Your task to perform on an android device: check out phone information Image 0: 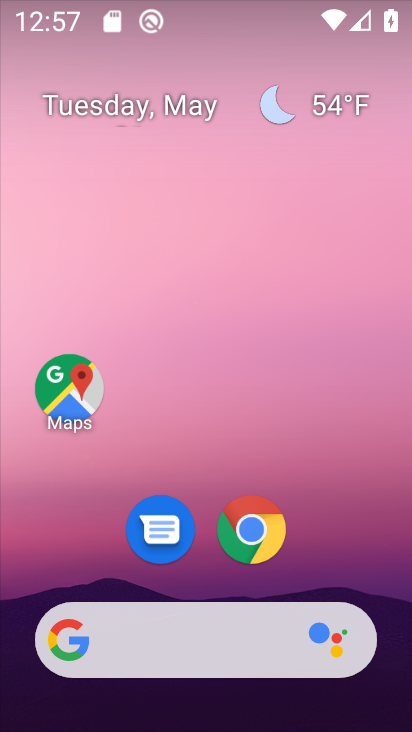
Step 0: drag from (301, 552) to (264, 260)
Your task to perform on an android device: check out phone information Image 1: 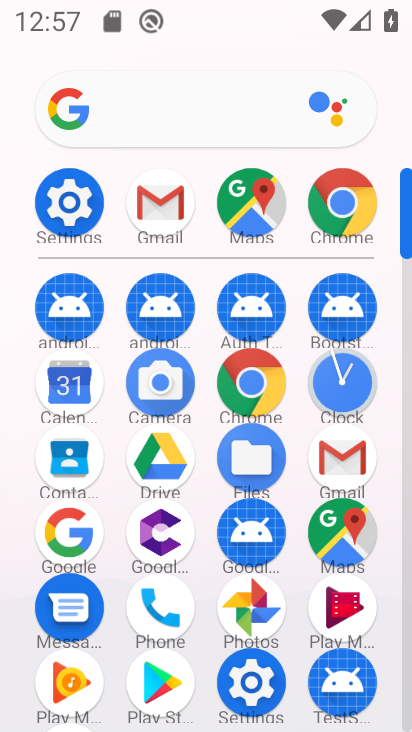
Step 1: click (250, 683)
Your task to perform on an android device: check out phone information Image 2: 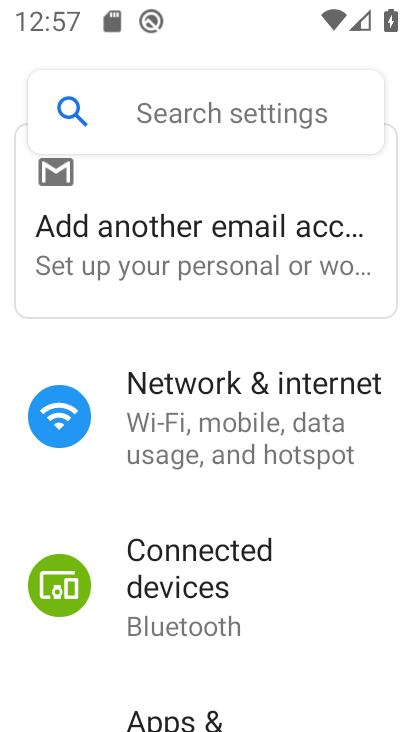
Step 2: drag from (305, 634) to (284, 248)
Your task to perform on an android device: check out phone information Image 3: 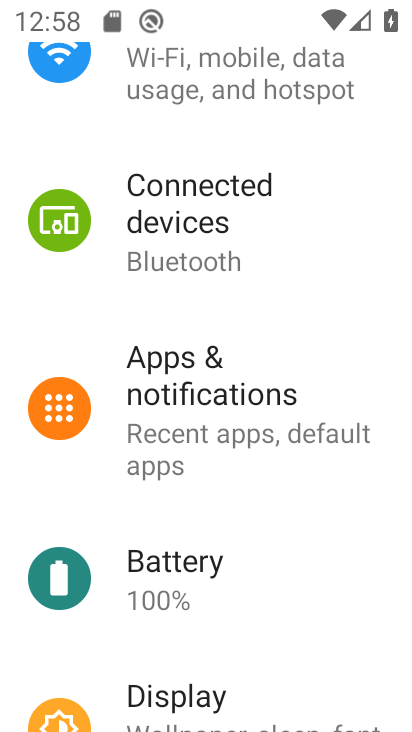
Step 3: drag from (228, 656) to (240, 173)
Your task to perform on an android device: check out phone information Image 4: 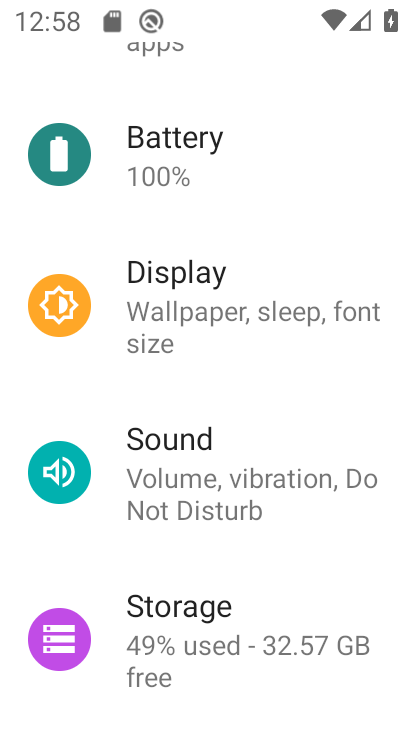
Step 4: drag from (247, 660) to (299, 146)
Your task to perform on an android device: check out phone information Image 5: 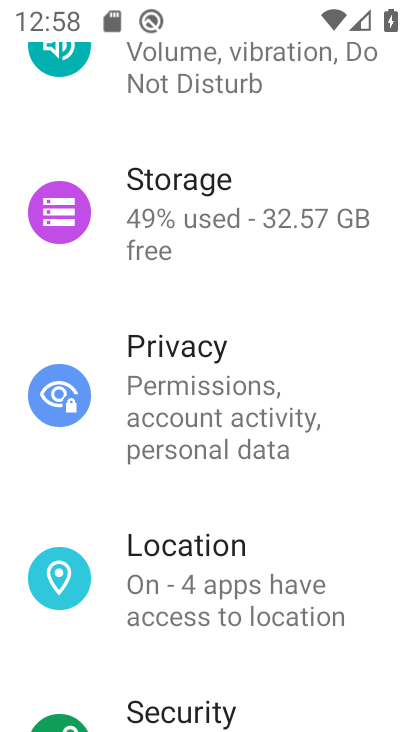
Step 5: drag from (215, 637) to (265, 175)
Your task to perform on an android device: check out phone information Image 6: 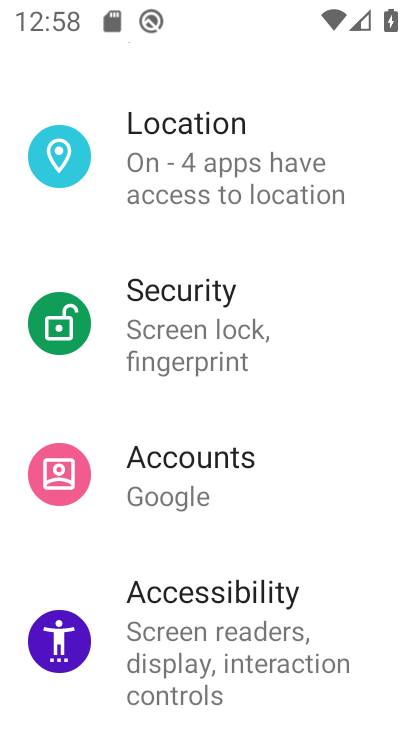
Step 6: drag from (287, 562) to (340, 62)
Your task to perform on an android device: check out phone information Image 7: 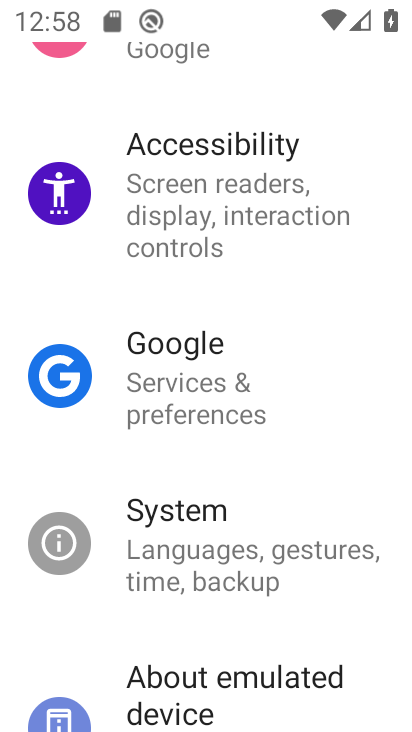
Step 7: drag from (249, 606) to (308, 234)
Your task to perform on an android device: check out phone information Image 8: 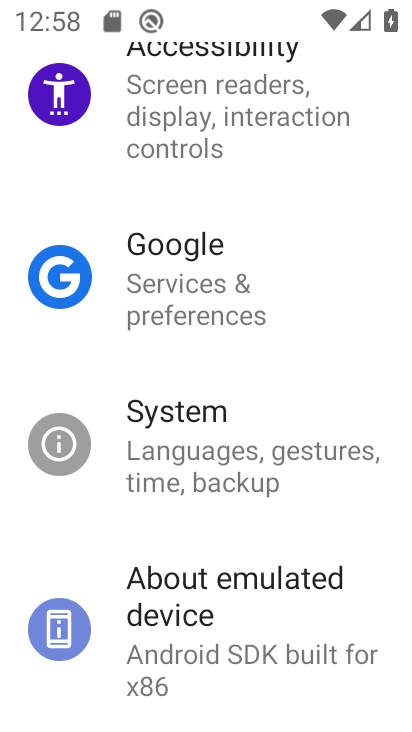
Step 8: click (260, 616)
Your task to perform on an android device: check out phone information Image 9: 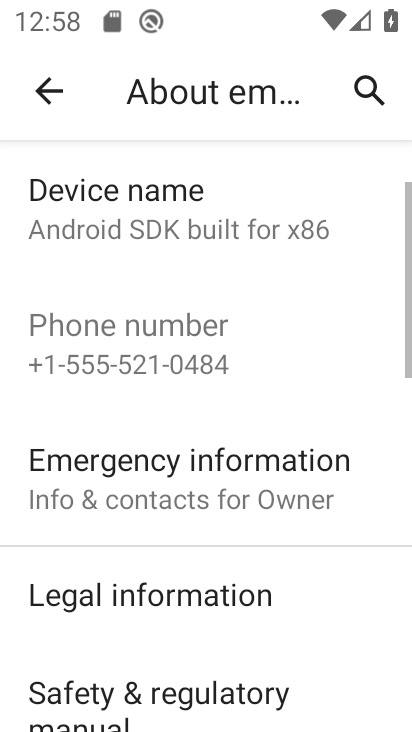
Step 9: task complete